Your task to perform on an android device: star an email in the gmail app Image 0: 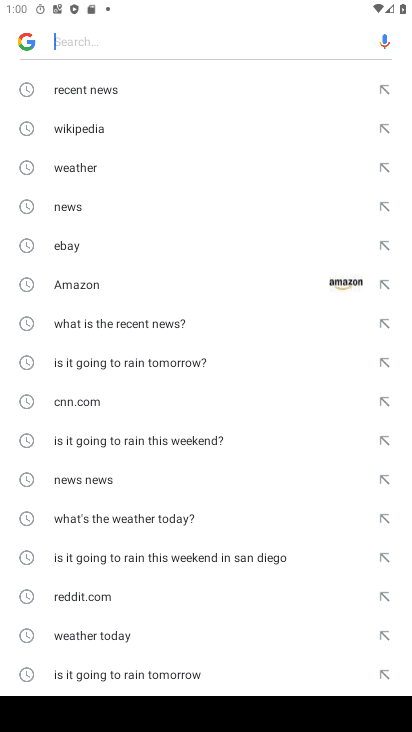
Step 0: press home button
Your task to perform on an android device: star an email in the gmail app Image 1: 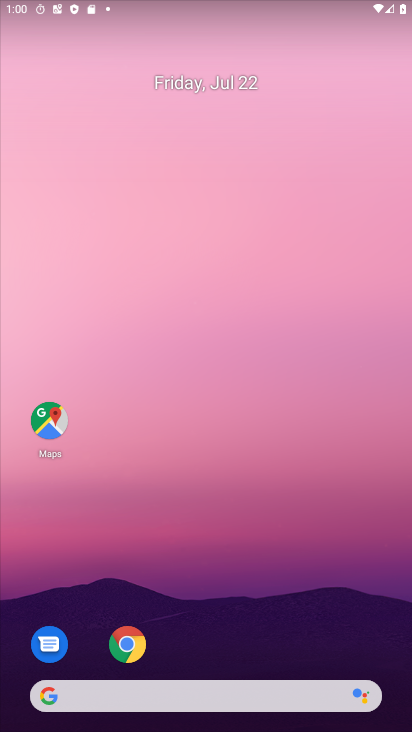
Step 1: drag from (214, 675) to (401, 23)
Your task to perform on an android device: star an email in the gmail app Image 2: 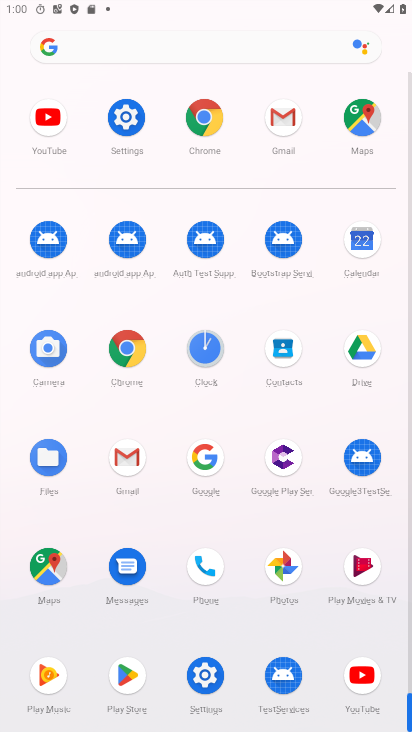
Step 2: click (136, 458)
Your task to perform on an android device: star an email in the gmail app Image 3: 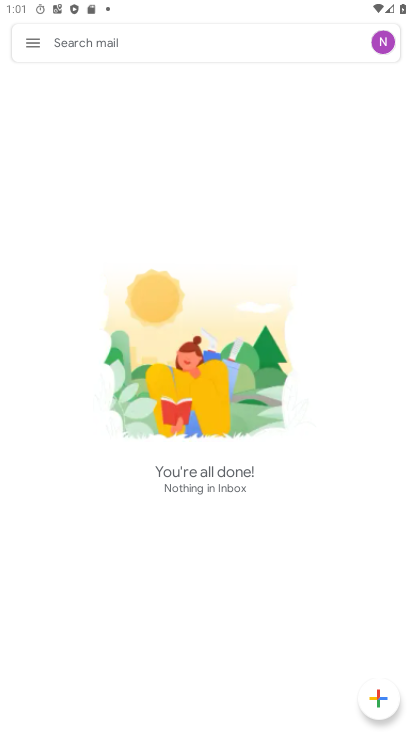
Step 3: click (32, 50)
Your task to perform on an android device: star an email in the gmail app Image 4: 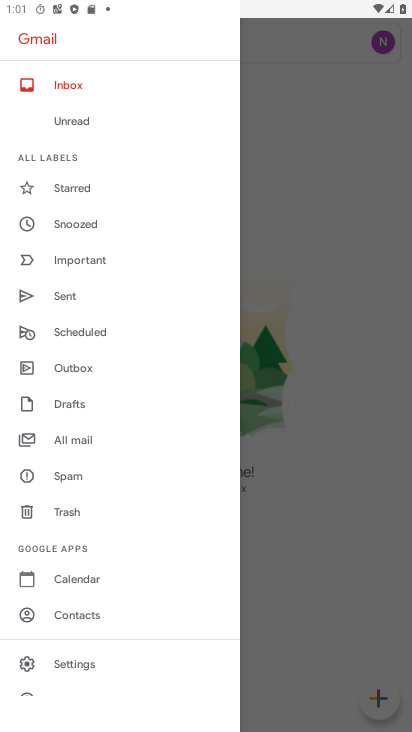
Step 4: click (53, 452)
Your task to perform on an android device: star an email in the gmail app Image 5: 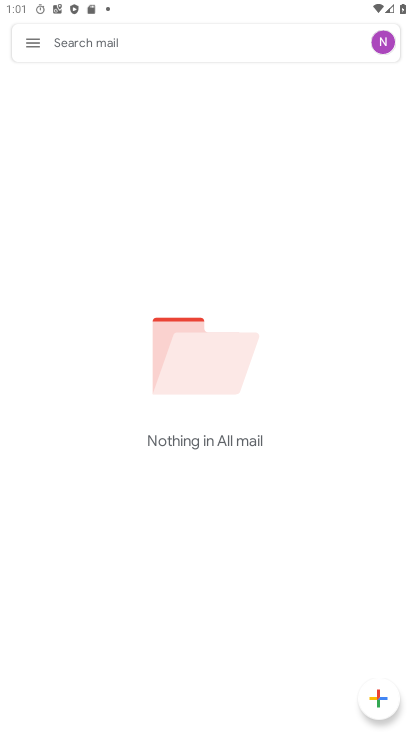
Step 5: task complete